Your task to perform on an android device: Open the calendar and show me this week's events? Image 0: 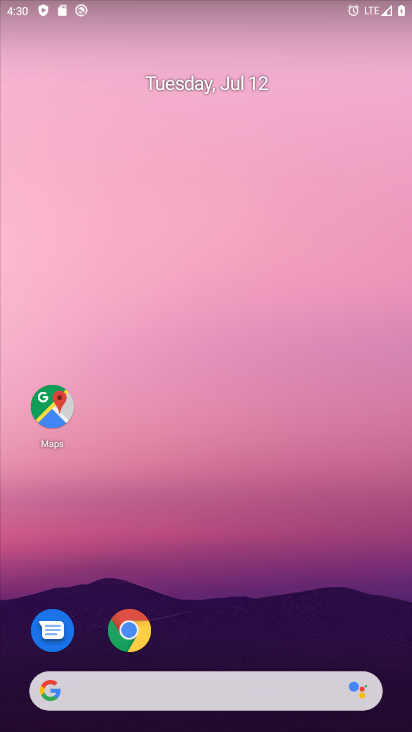
Step 0: drag from (250, 671) to (111, 22)
Your task to perform on an android device: Open the calendar and show me this week's events? Image 1: 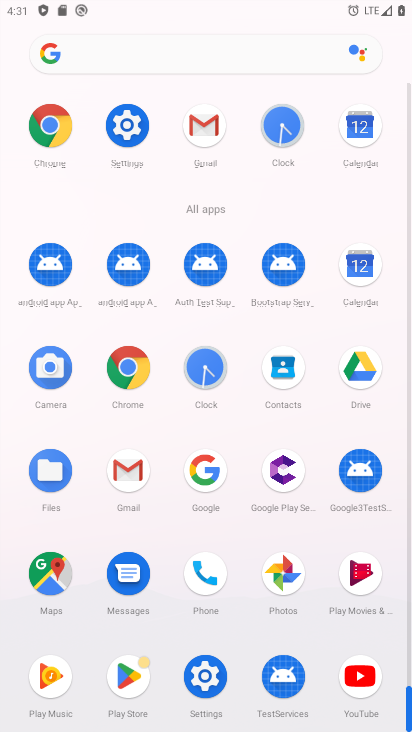
Step 1: click (359, 264)
Your task to perform on an android device: Open the calendar and show me this week's events? Image 2: 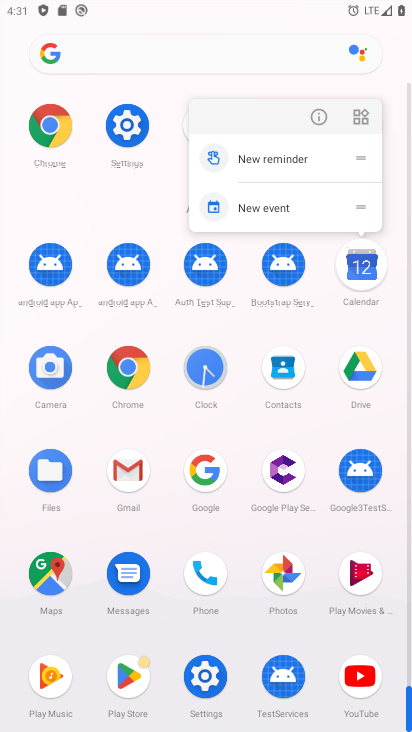
Step 2: click (361, 257)
Your task to perform on an android device: Open the calendar and show me this week's events? Image 3: 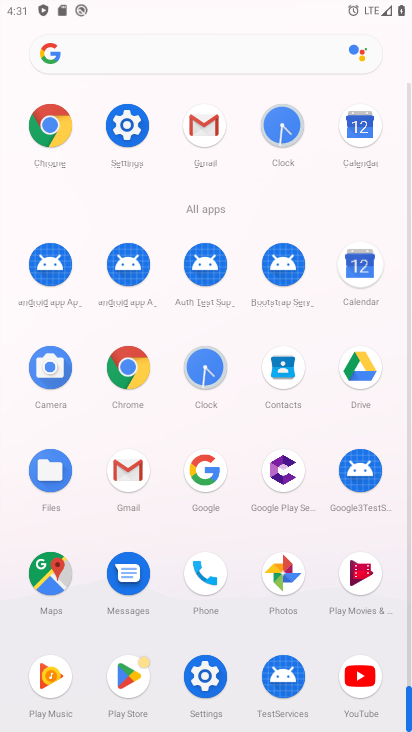
Step 3: click (361, 257)
Your task to perform on an android device: Open the calendar and show me this week's events? Image 4: 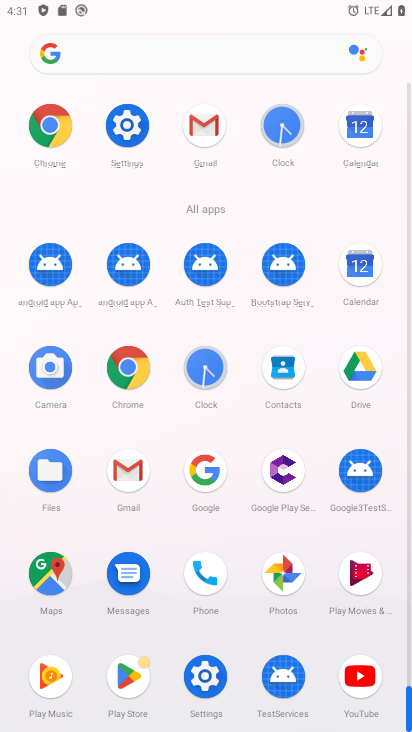
Step 4: click (372, 253)
Your task to perform on an android device: Open the calendar and show me this week's events? Image 5: 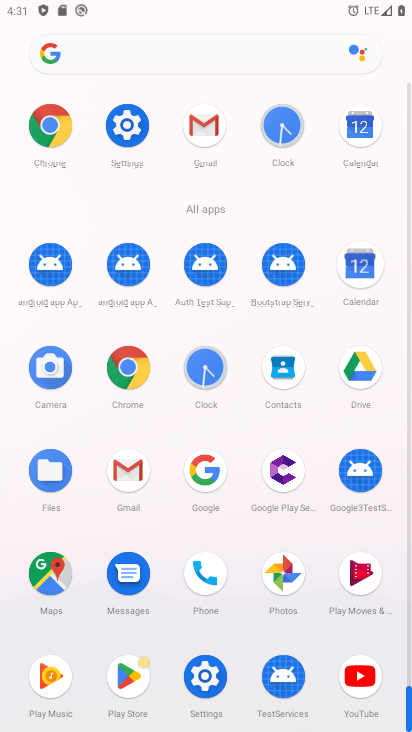
Step 5: click (373, 254)
Your task to perform on an android device: Open the calendar and show me this week's events? Image 6: 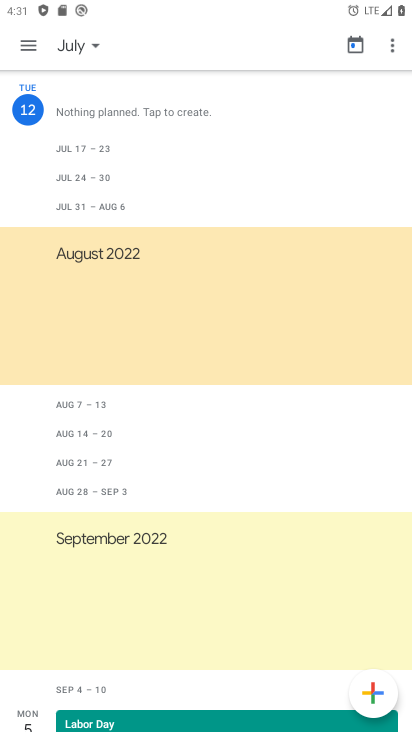
Step 6: click (373, 254)
Your task to perform on an android device: Open the calendar and show me this week's events? Image 7: 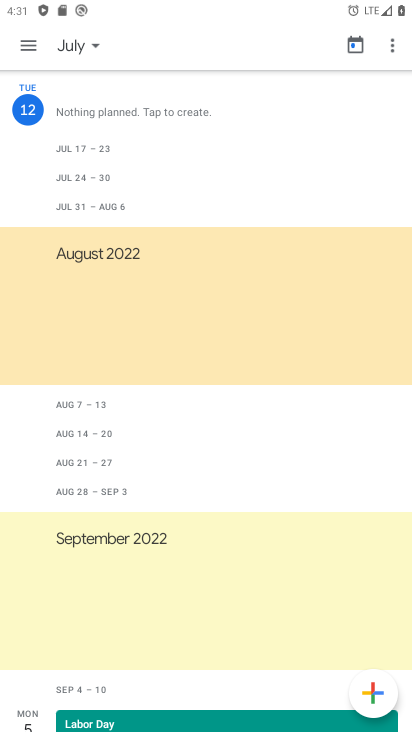
Step 7: task complete